Your task to perform on an android device: check google app version Image 0: 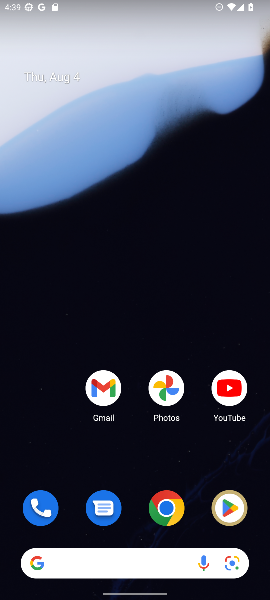
Step 0: drag from (157, 212) to (194, 102)
Your task to perform on an android device: check google app version Image 1: 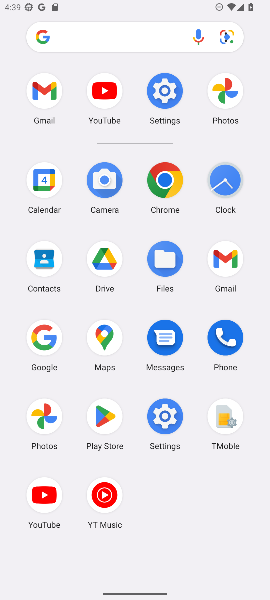
Step 1: click (41, 340)
Your task to perform on an android device: check google app version Image 2: 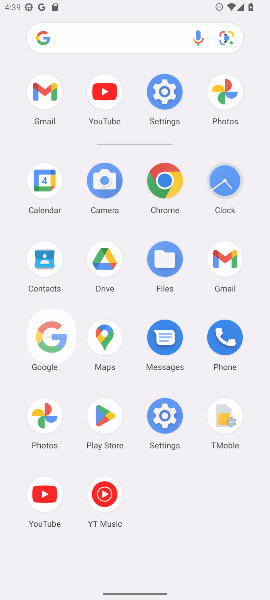
Step 2: click (41, 340)
Your task to perform on an android device: check google app version Image 3: 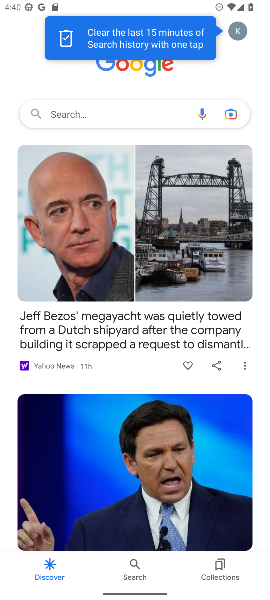
Step 3: drag from (135, 470) to (209, 209)
Your task to perform on an android device: check google app version Image 4: 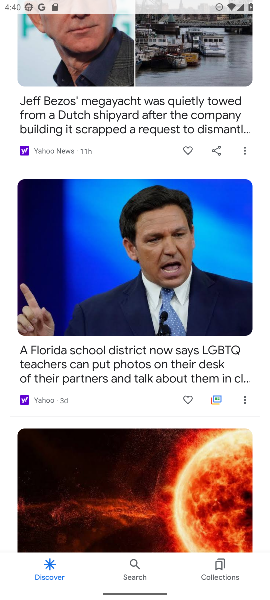
Step 4: drag from (191, 189) to (268, 571)
Your task to perform on an android device: check google app version Image 5: 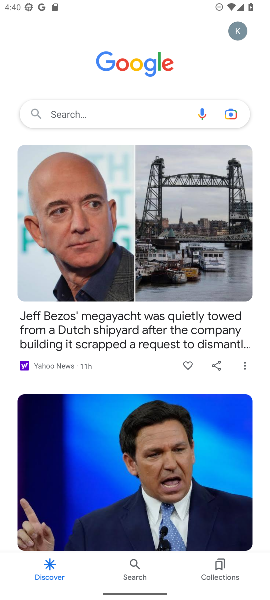
Step 5: drag from (239, 27) to (211, 255)
Your task to perform on an android device: check google app version Image 6: 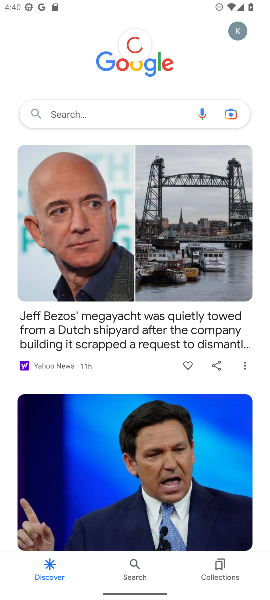
Step 6: click (231, 21)
Your task to perform on an android device: check google app version Image 7: 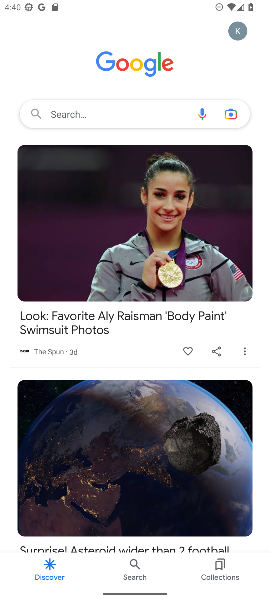
Step 7: drag from (233, 29) to (257, 73)
Your task to perform on an android device: check google app version Image 8: 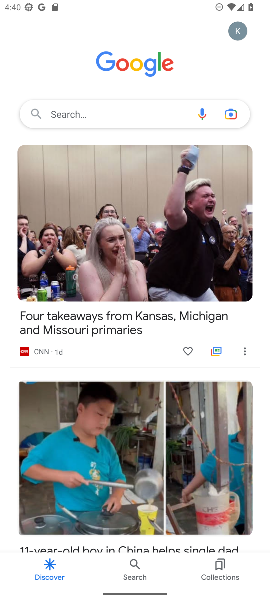
Step 8: click (240, 29)
Your task to perform on an android device: check google app version Image 9: 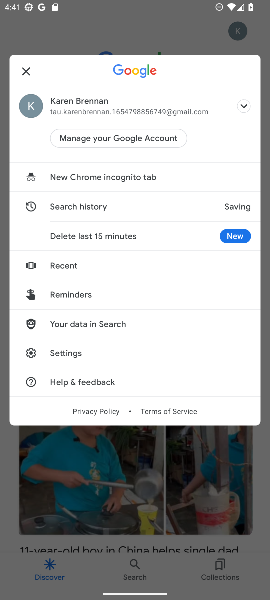
Step 9: click (54, 353)
Your task to perform on an android device: check google app version Image 10: 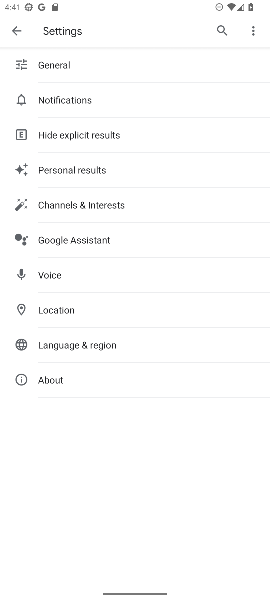
Step 10: click (62, 377)
Your task to perform on an android device: check google app version Image 11: 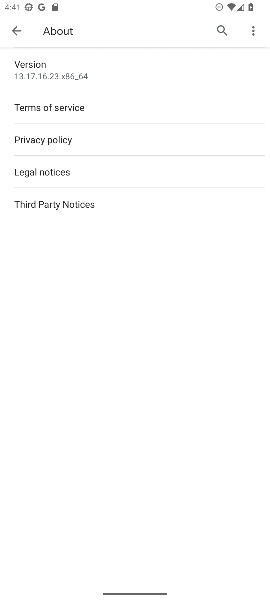
Step 11: click (118, 73)
Your task to perform on an android device: check google app version Image 12: 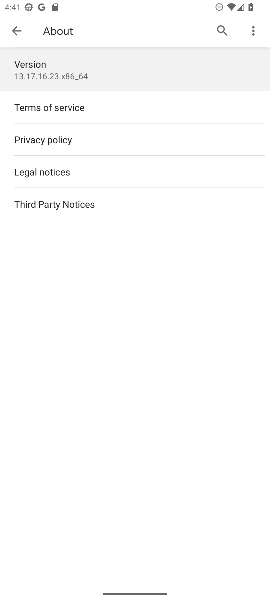
Step 12: task complete